Your task to perform on an android device: Open calendar and show me the third week of next month Image 0: 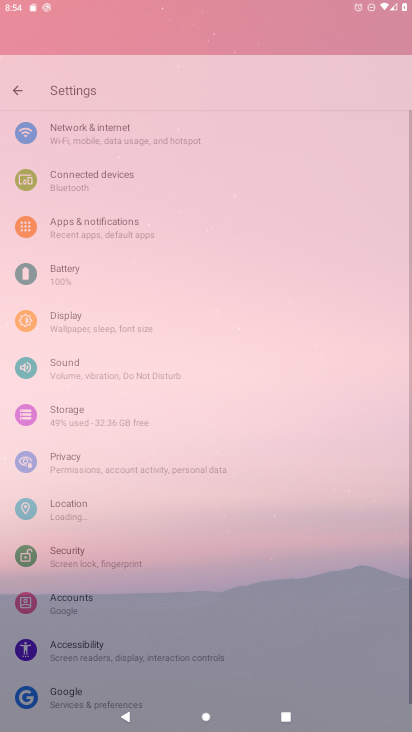
Step 0: drag from (233, 410) to (232, 123)
Your task to perform on an android device: Open calendar and show me the third week of next month Image 1: 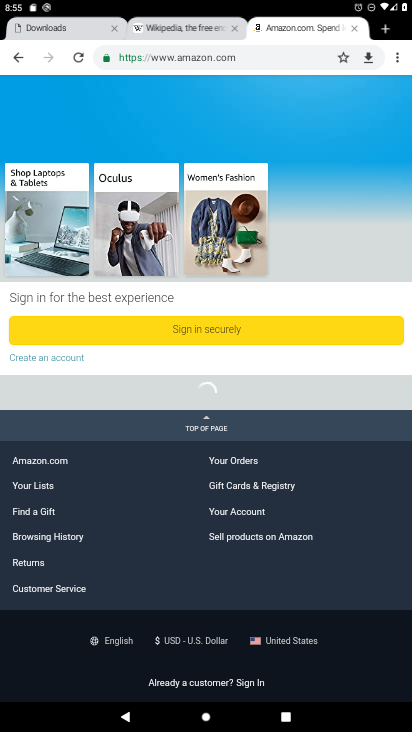
Step 1: press home button
Your task to perform on an android device: Open calendar and show me the third week of next month Image 2: 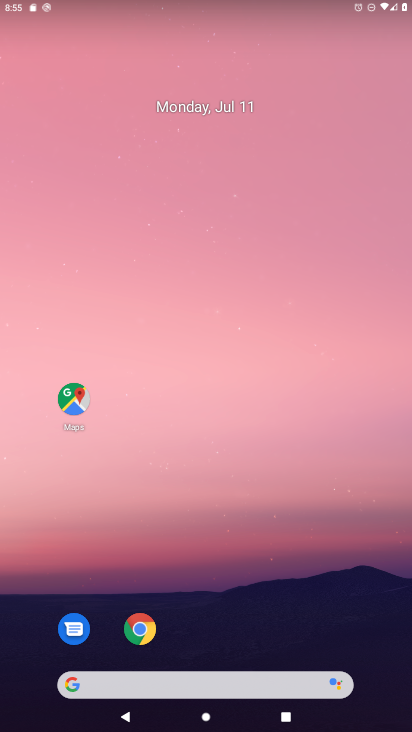
Step 2: drag from (211, 636) to (214, 99)
Your task to perform on an android device: Open calendar and show me the third week of next month Image 3: 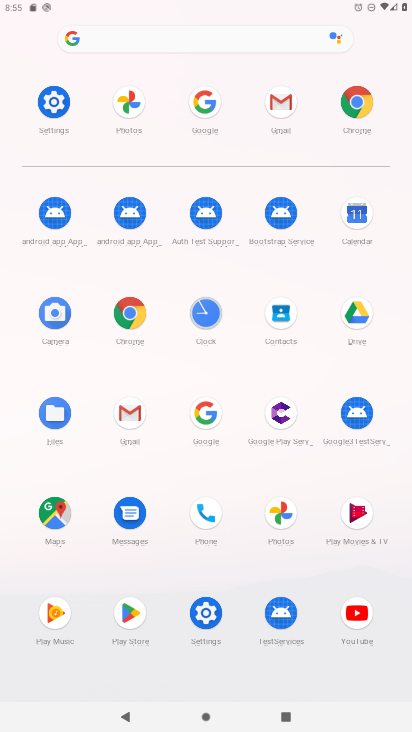
Step 3: click (357, 217)
Your task to perform on an android device: Open calendar and show me the third week of next month Image 4: 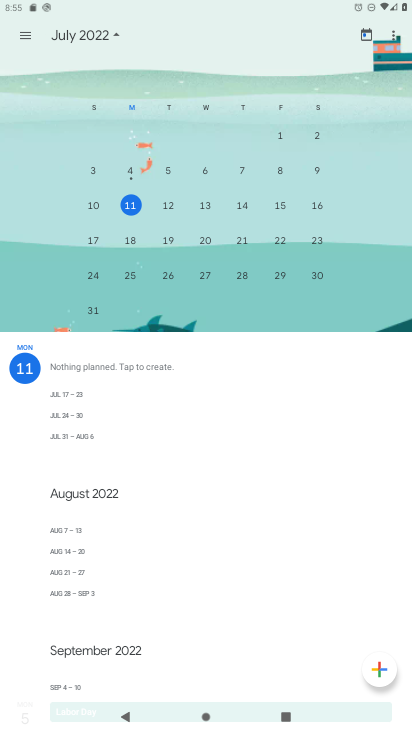
Step 4: drag from (380, 285) to (22, 277)
Your task to perform on an android device: Open calendar and show me the third week of next month Image 5: 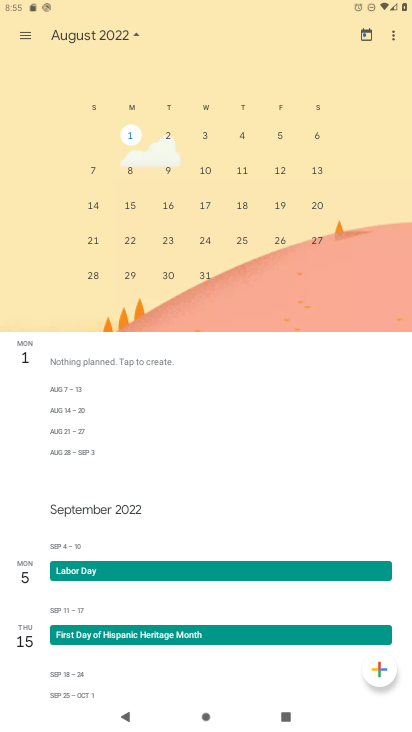
Step 5: click (201, 206)
Your task to perform on an android device: Open calendar and show me the third week of next month Image 6: 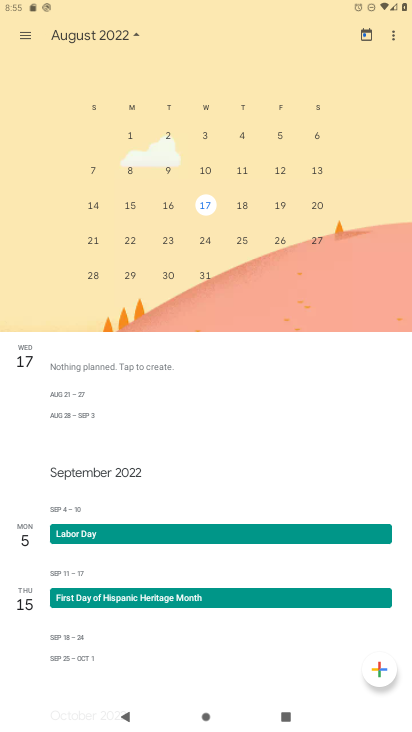
Step 6: task complete